Your task to perform on an android device: What's the weather going to be this weekend? Image 0: 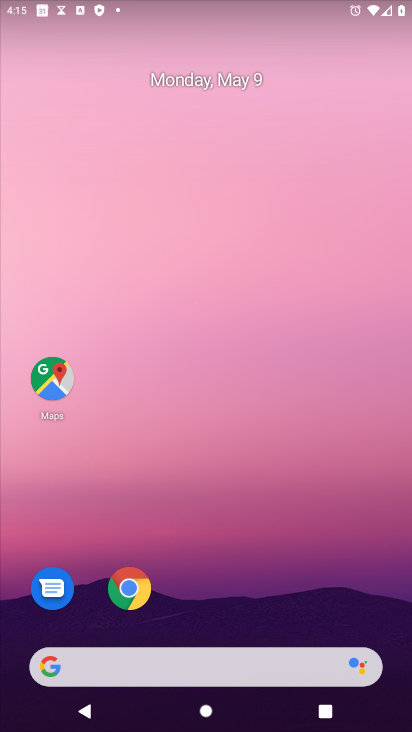
Step 0: drag from (285, 580) to (183, 64)
Your task to perform on an android device: What's the weather going to be this weekend? Image 1: 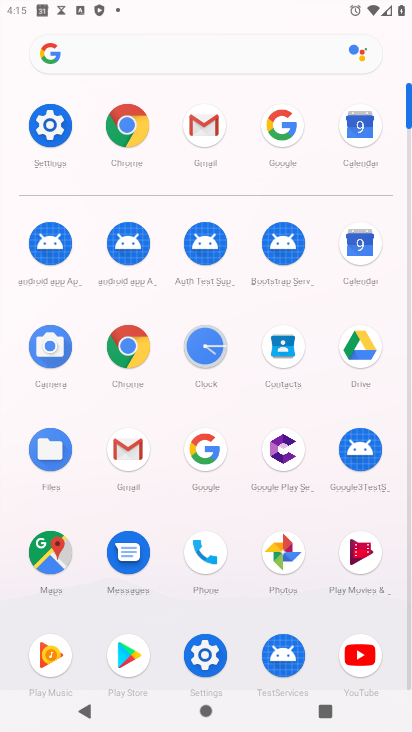
Step 1: click (210, 443)
Your task to perform on an android device: What's the weather going to be this weekend? Image 2: 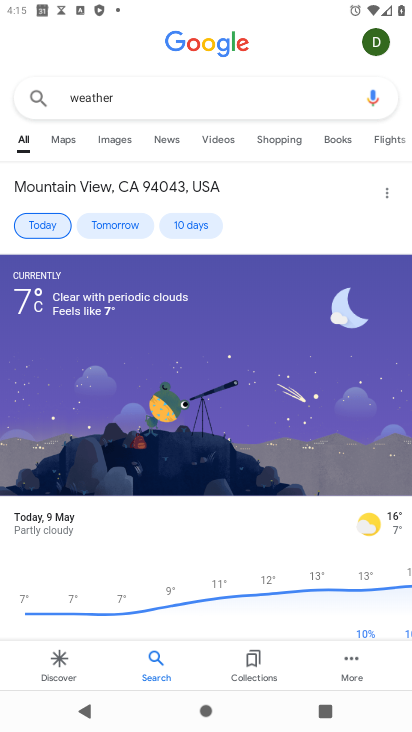
Step 2: click (190, 226)
Your task to perform on an android device: What's the weather going to be this weekend? Image 3: 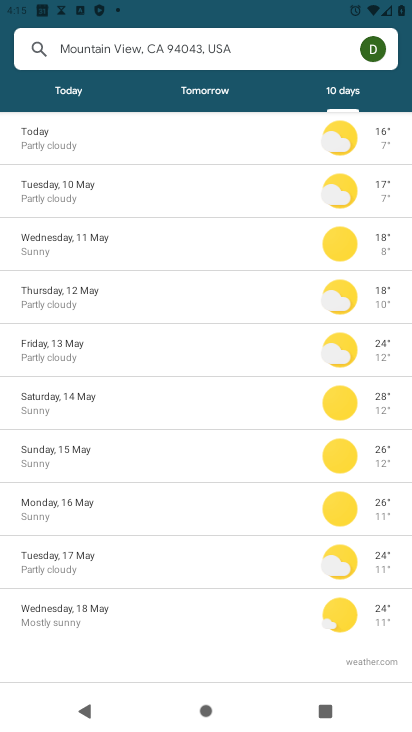
Step 3: task complete